Your task to perform on an android device: install app "Google Keep" Image 0: 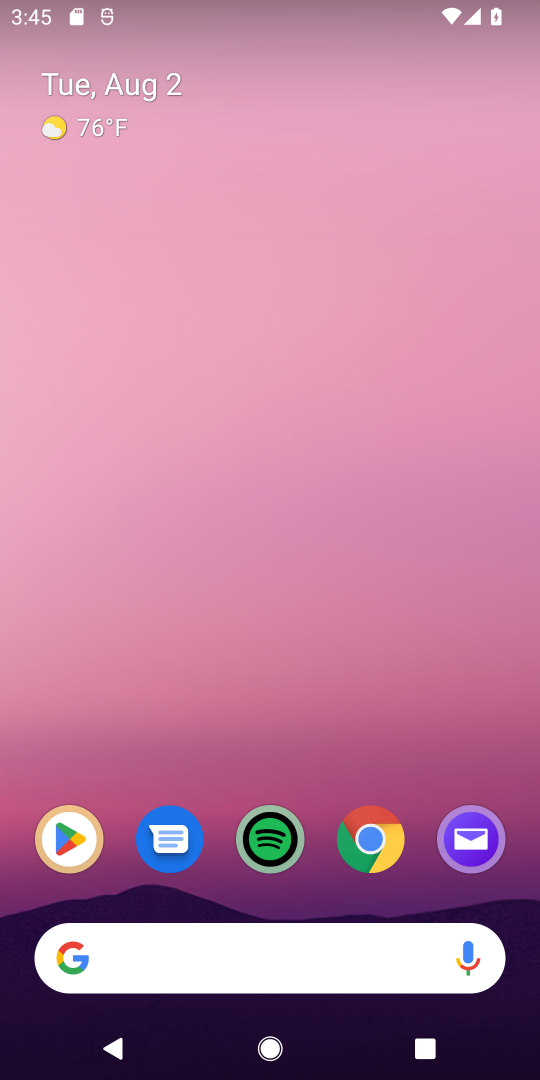
Step 0: click (92, 851)
Your task to perform on an android device: install app "Google Keep" Image 1: 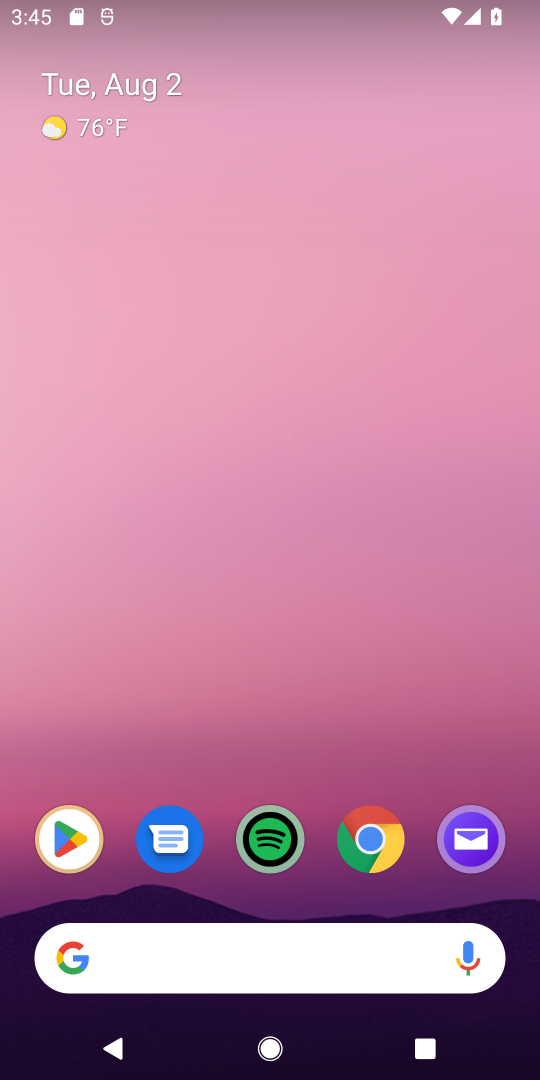
Step 1: click (92, 851)
Your task to perform on an android device: install app "Google Keep" Image 2: 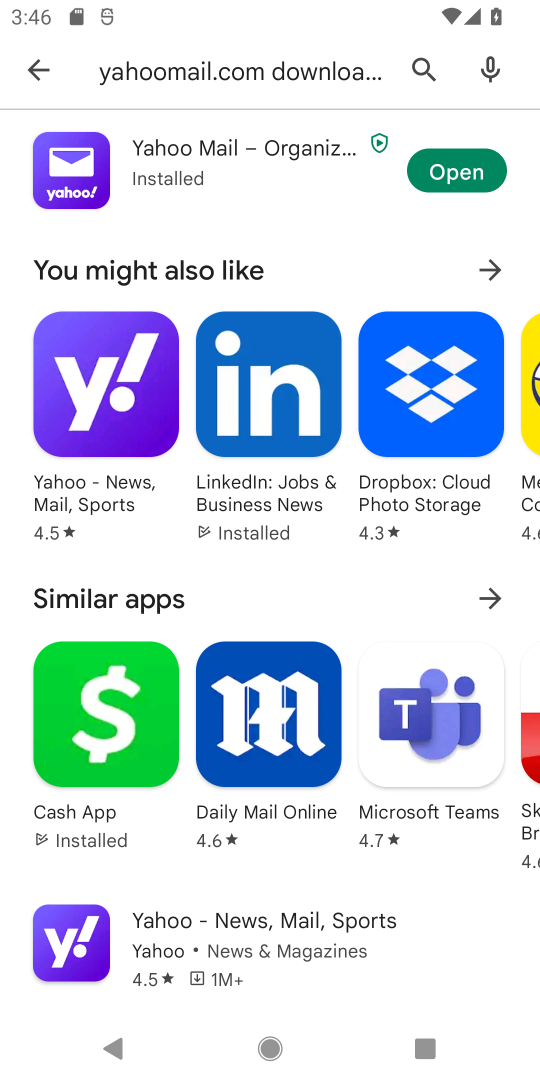
Step 2: click (436, 81)
Your task to perform on an android device: install app "Google Keep" Image 3: 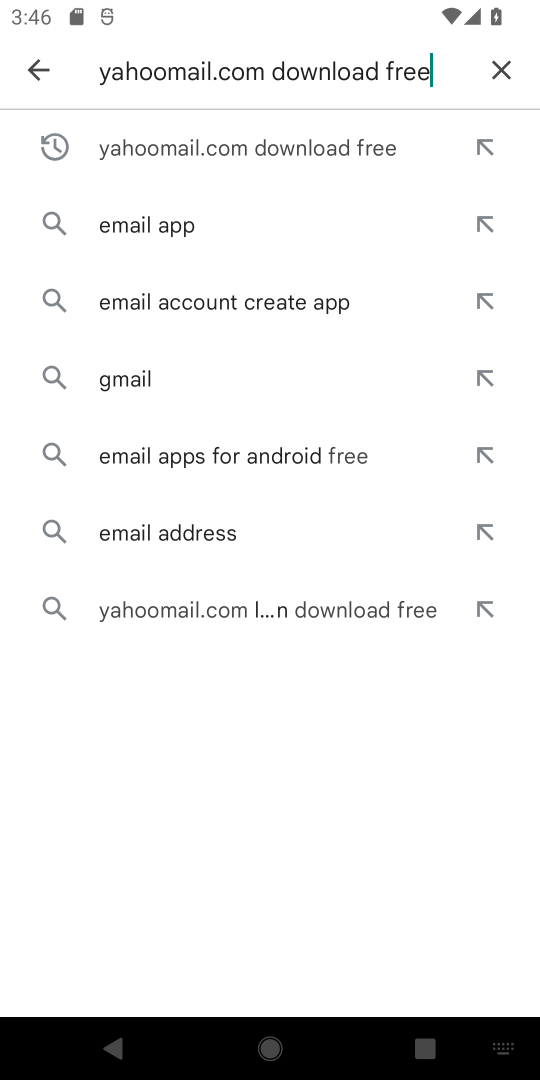
Step 3: click (487, 80)
Your task to perform on an android device: install app "Google Keep" Image 4: 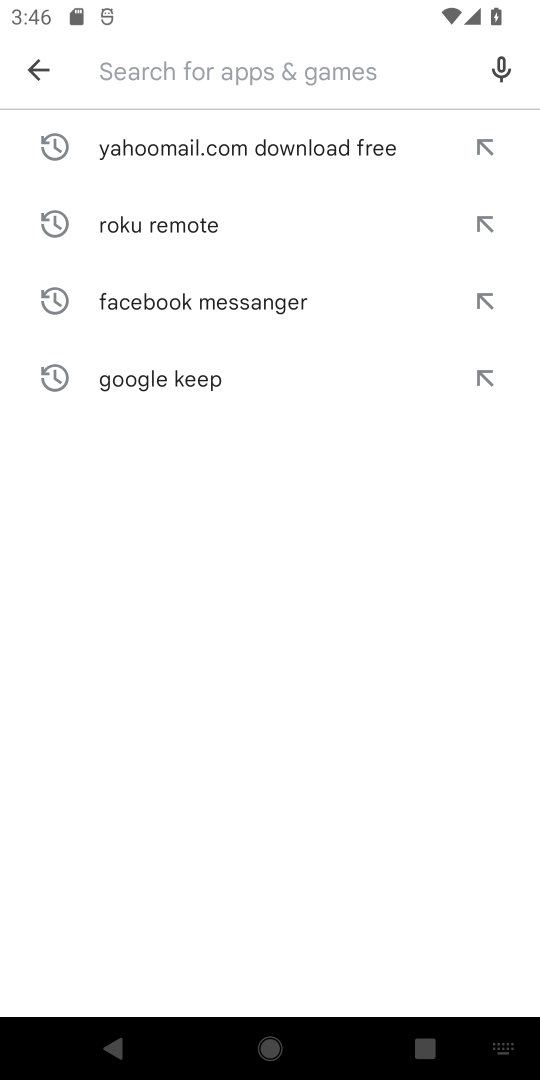
Step 4: type "gooogle keep"
Your task to perform on an android device: install app "Google Keep" Image 5: 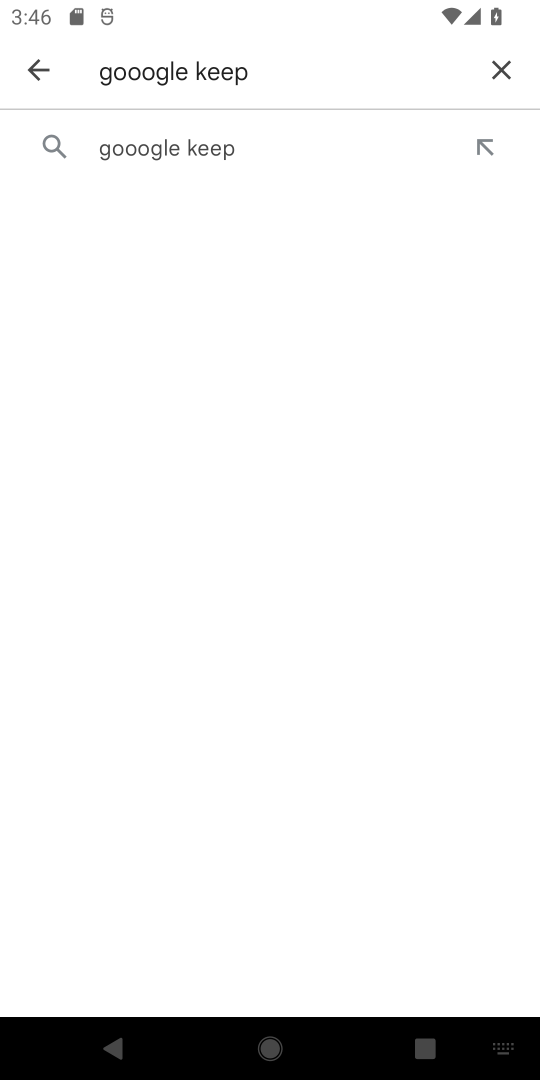
Step 5: click (275, 174)
Your task to perform on an android device: install app "Google Keep" Image 6: 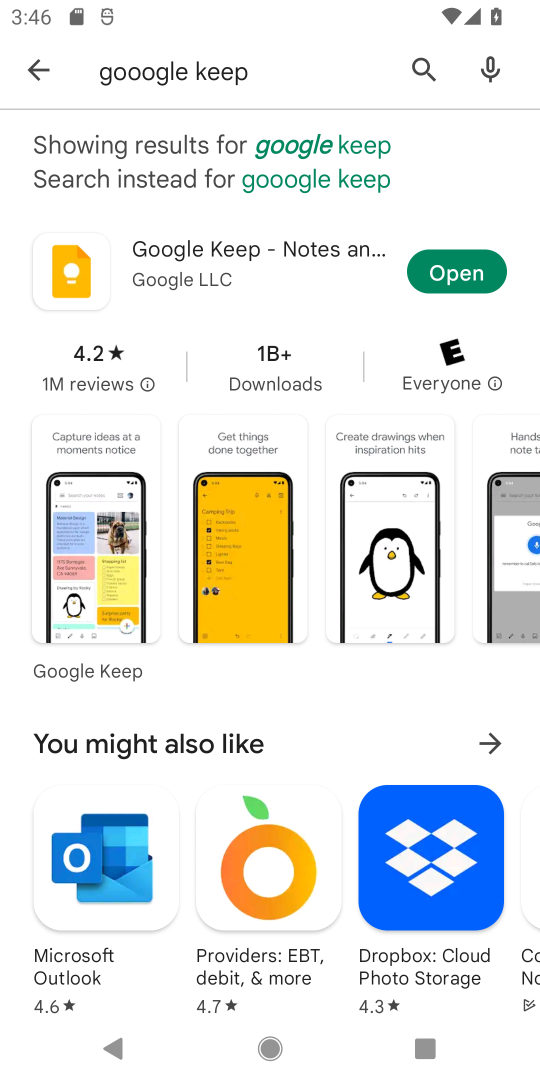
Step 6: click (446, 268)
Your task to perform on an android device: install app "Google Keep" Image 7: 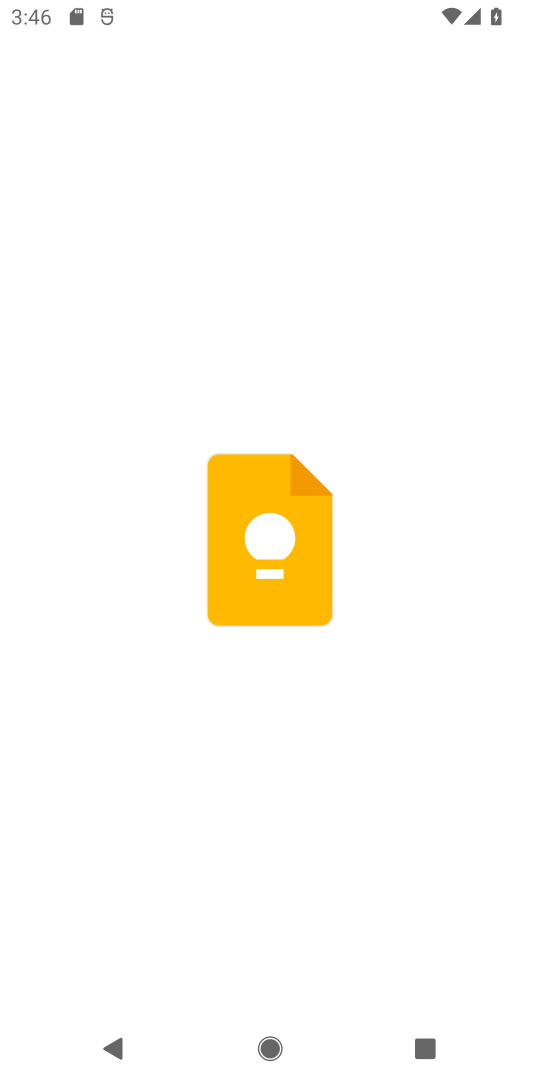
Step 7: task complete